Your task to perform on an android device: Check the news Image 0: 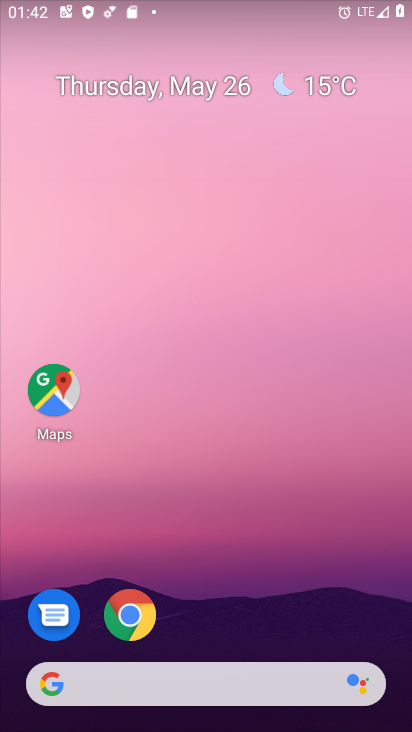
Step 0: click (139, 682)
Your task to perform on an android device: Check the news Image 1: 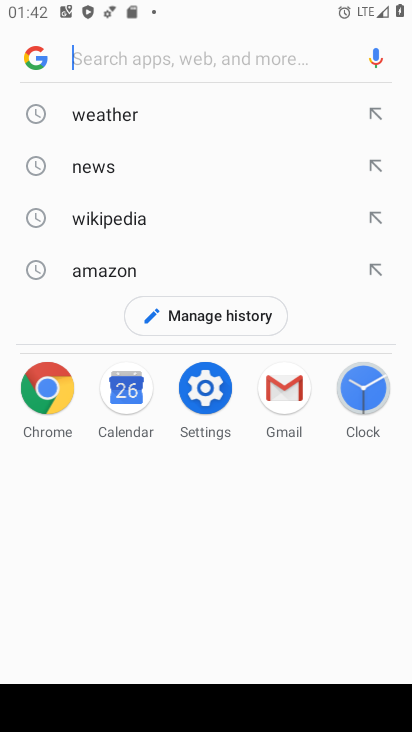
Step 1: click (104, 172)
Your task to perform on an android device: Check the news Image 2: 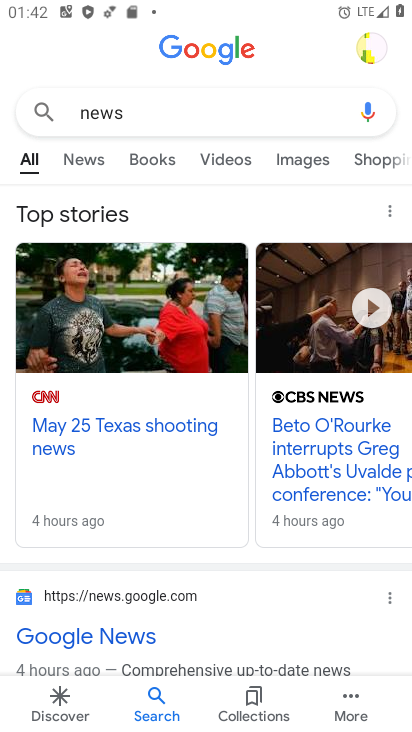
Step 2: task complete